Your task to perform on an android device: remove spam from my inbox in the gmail app Image 0: 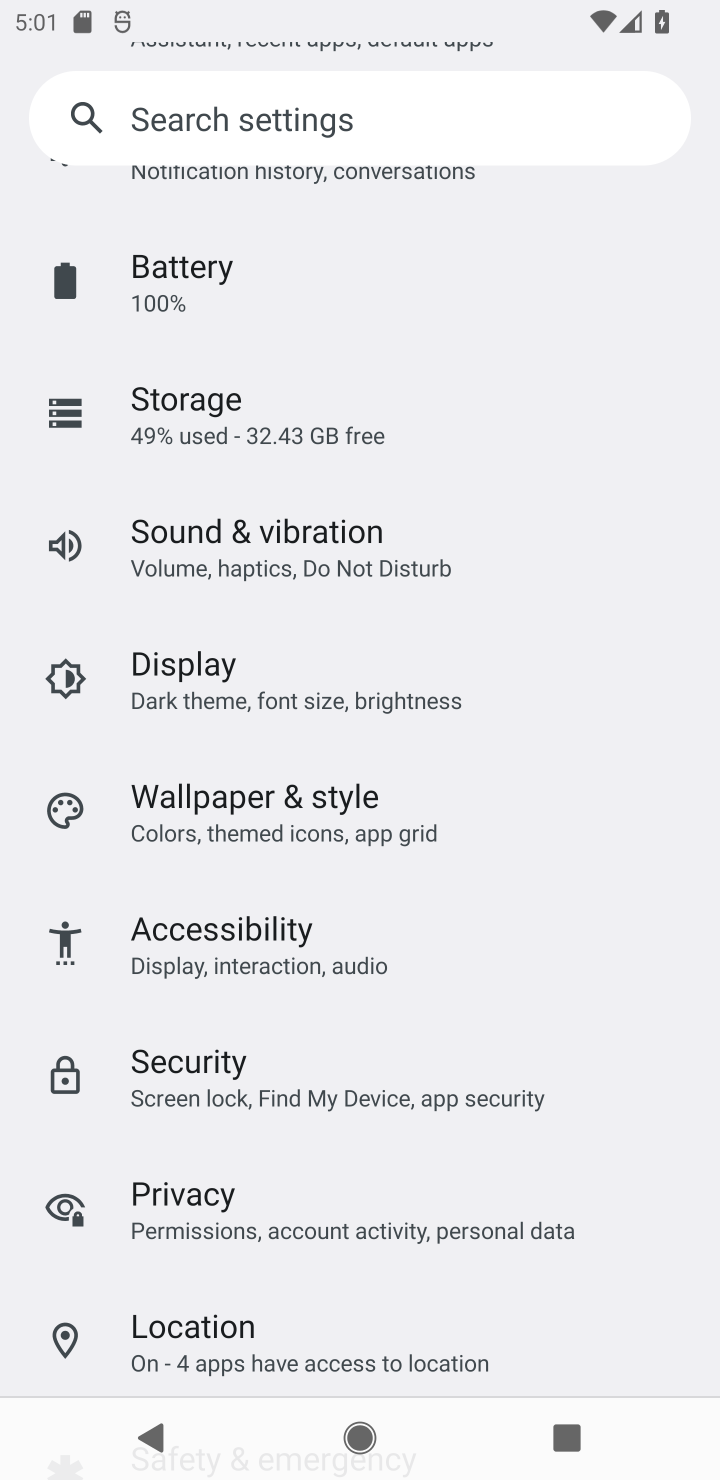
Step 0: press home button
Your task to perform on an android device: remove spam from my inbox in the gmail app Image 1: 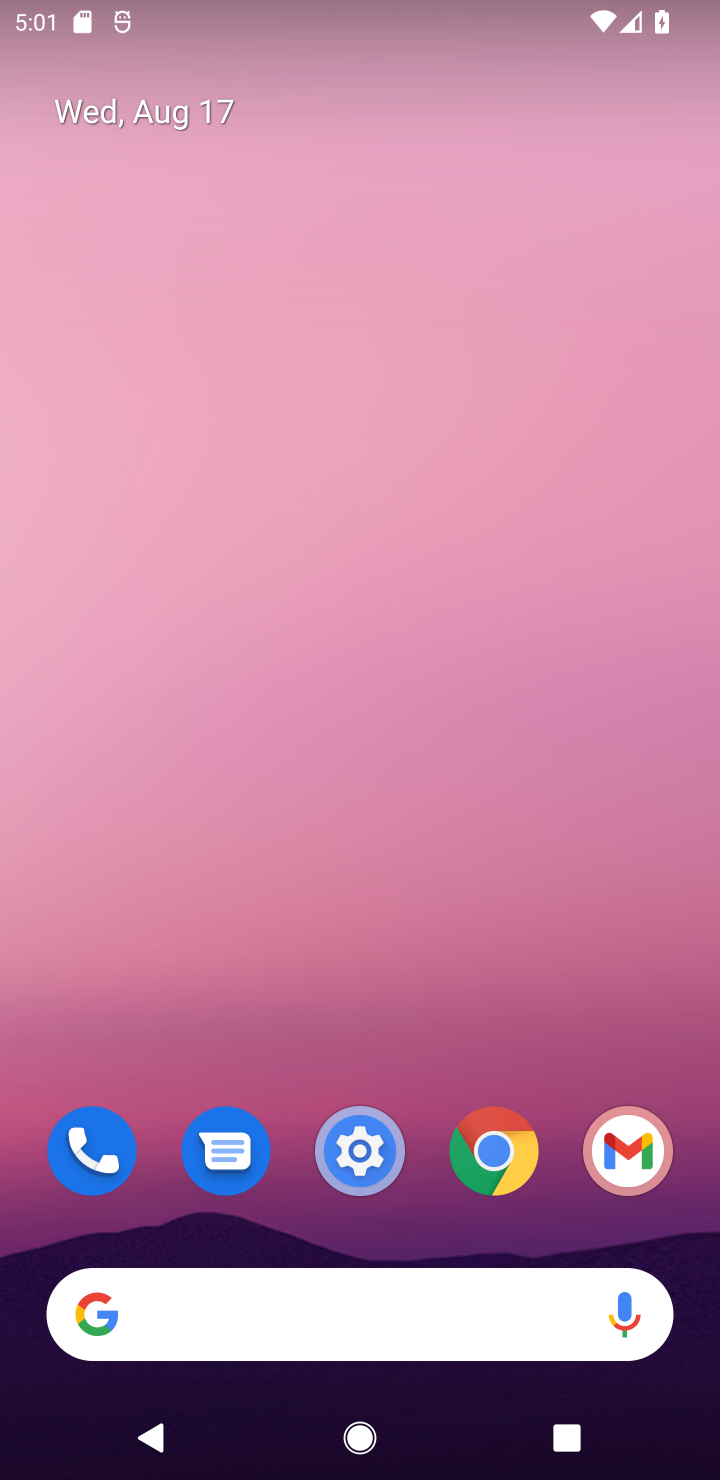
Step 1: click (603, 1163)
Your task to perform on an android device: remove spam from my inbox in the gmail app Image 2: 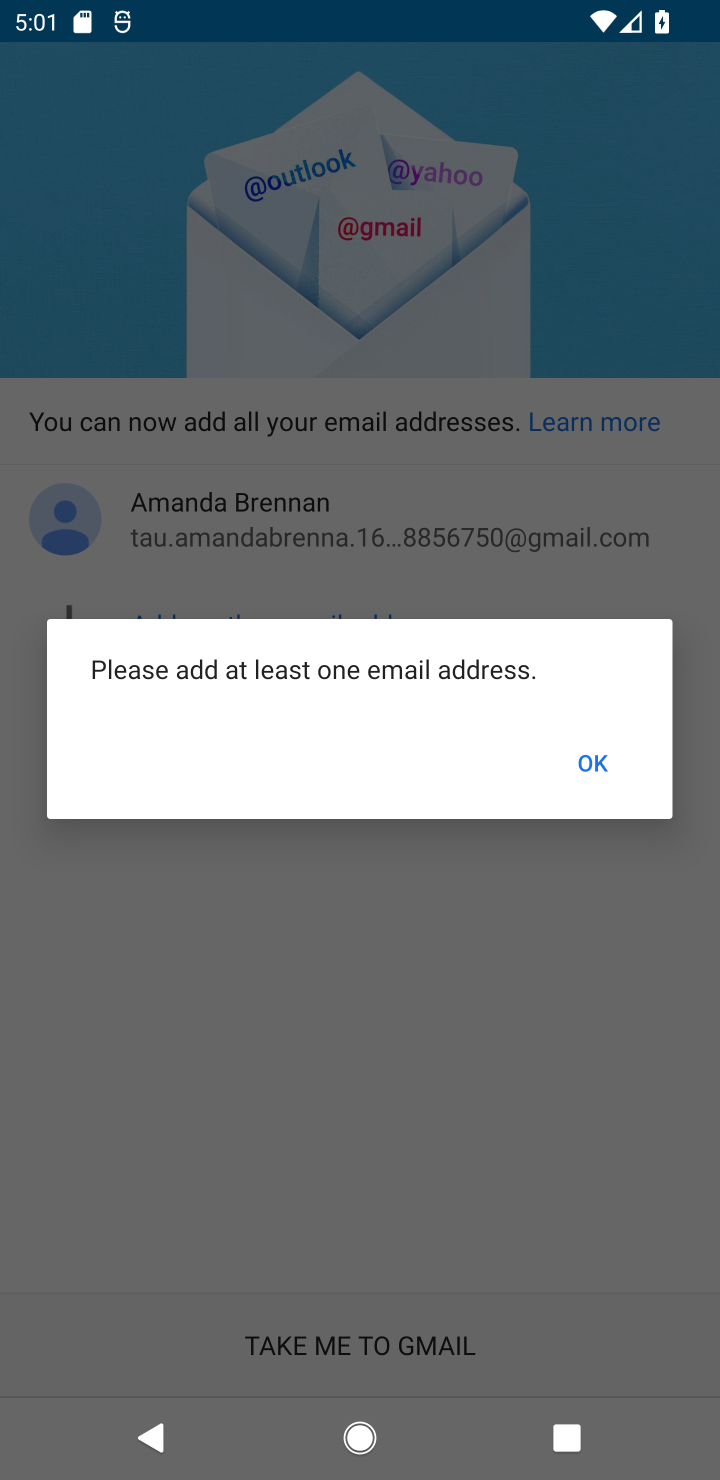
Step 2: click (632, 771)
Your task to perform on an android device: remove spam from my inbox in the gmail app Image 3: 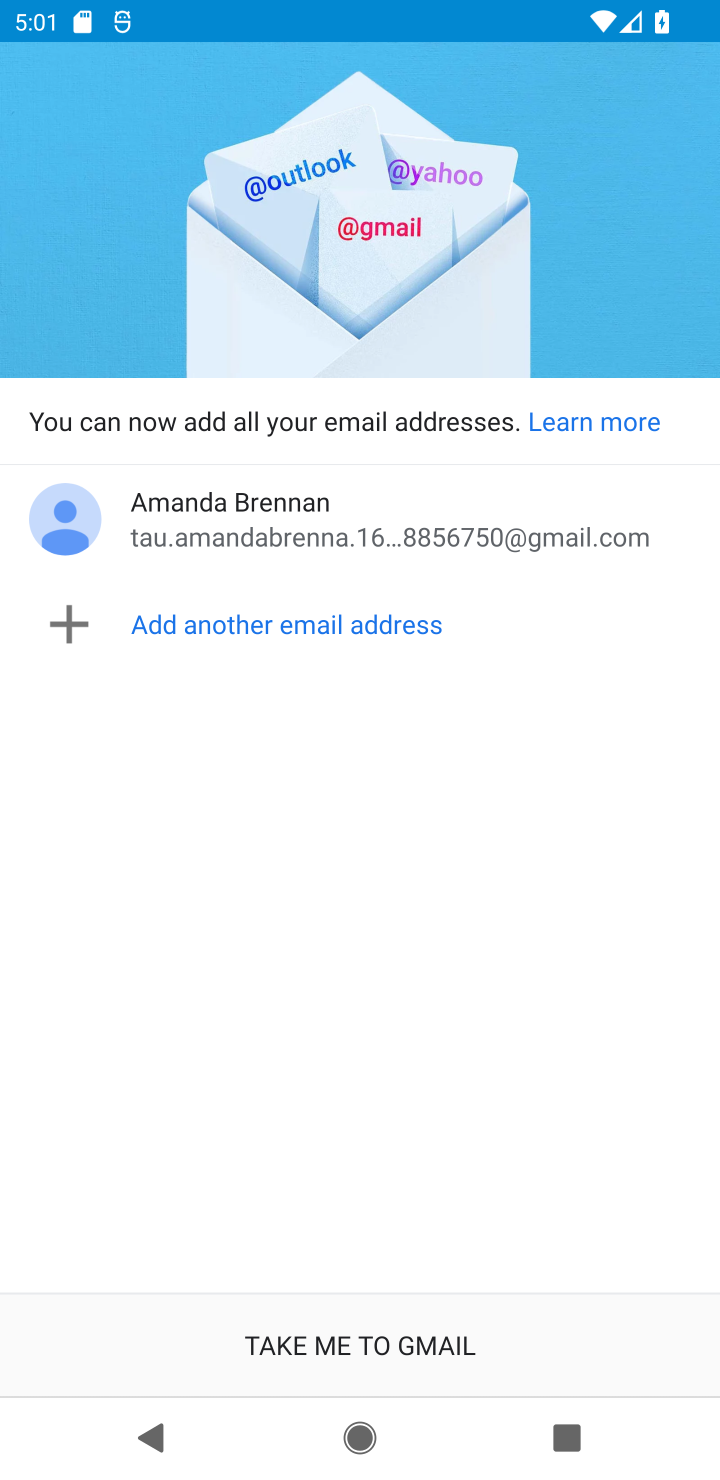
Step 3: click (275, 1356)
Your task to perform on an android device: remove spam from my inbox in the gmail app Image 4: 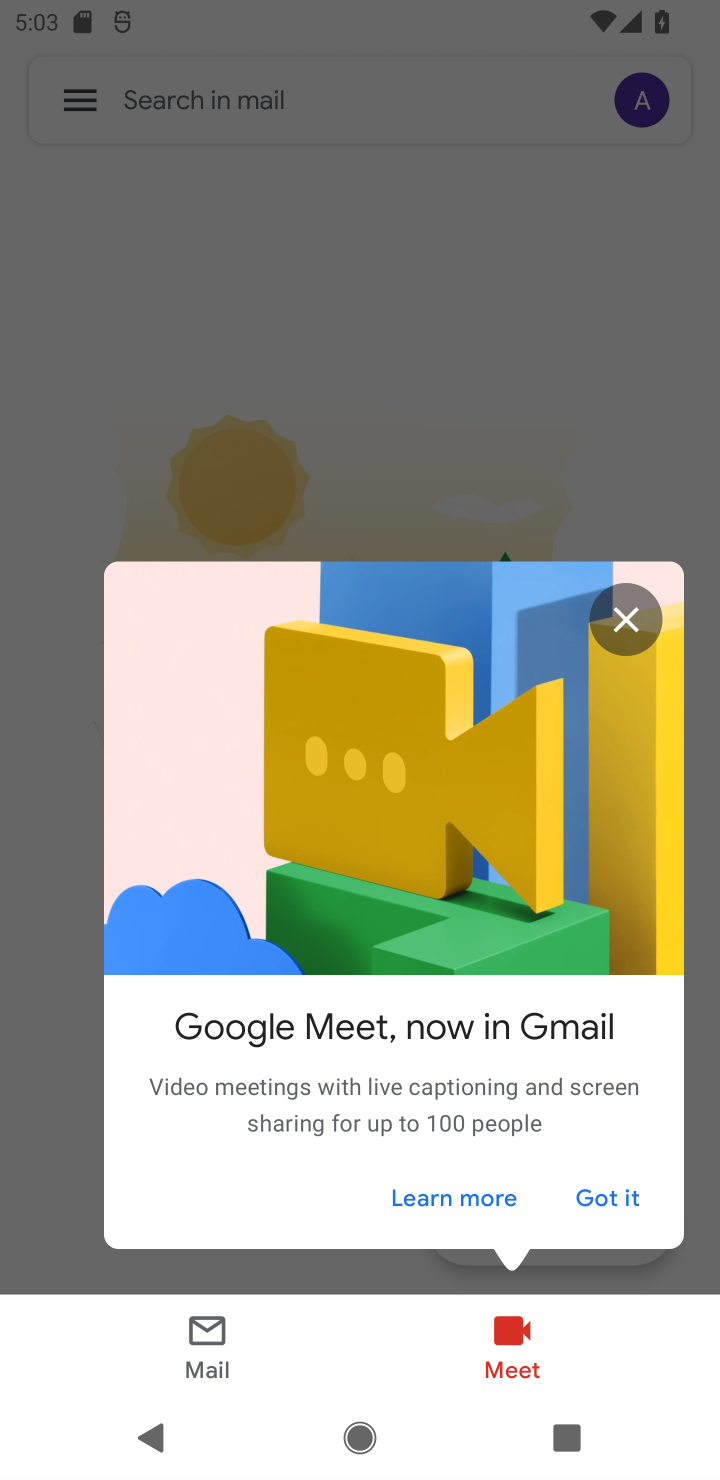
Step 4: task complete